Your task to perform on an android device: Go to privacy settings Image 0: 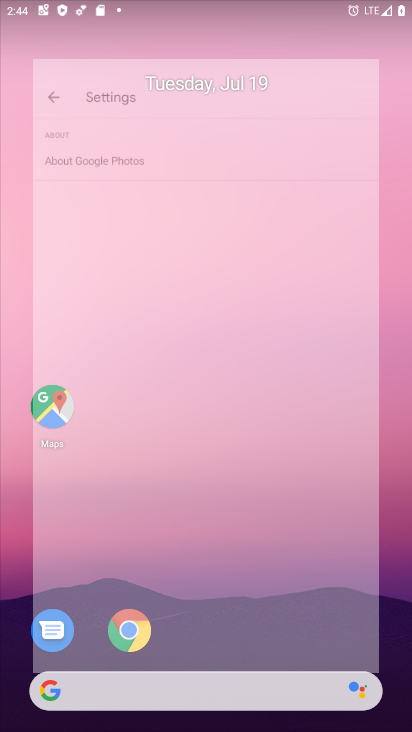
Step 0: press home button
Your task to perform on an android device: Go to privacy settings Image 1: 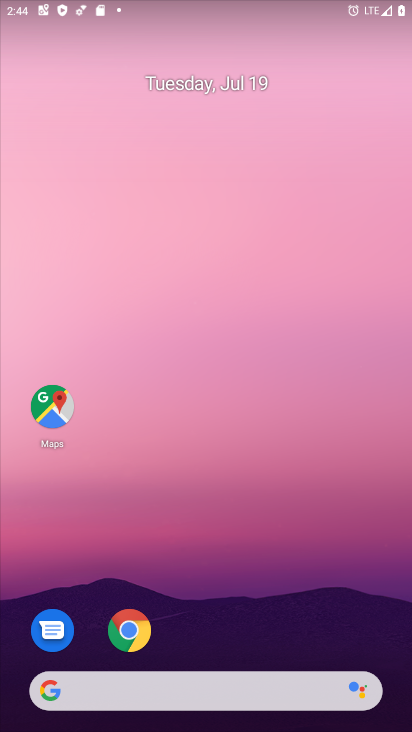
Step 1: drag from (214, 649) to (202, 0)
Your task to perform on an android device: Go to privacy settings Image 2: 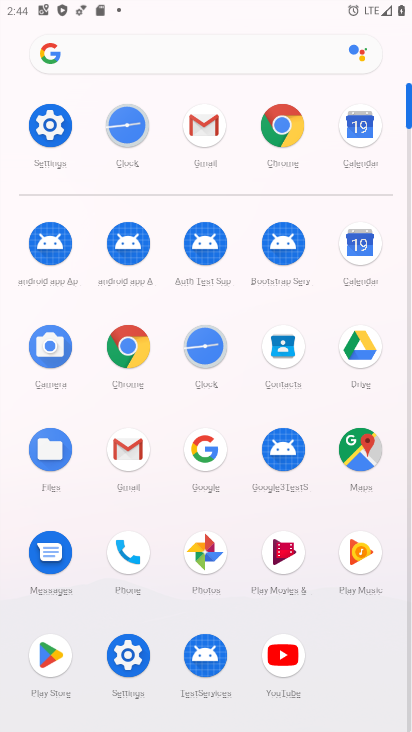
Step 2: click (51, 121)
Your task to perform on an android device: Go to privacy settings Image 3: 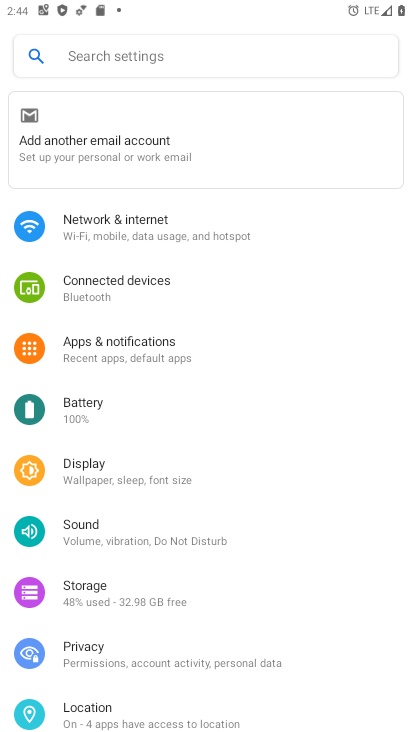
Step 3: click (120, 645)
Your task to perform on an android device: Go to privacy settings Image 4: 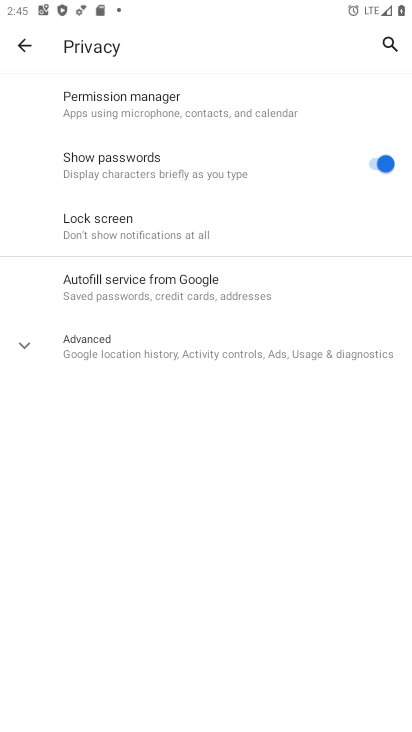
Step 4: click (28, 343)
Your task to perform on an android device: Go to privacy settings Image 5: 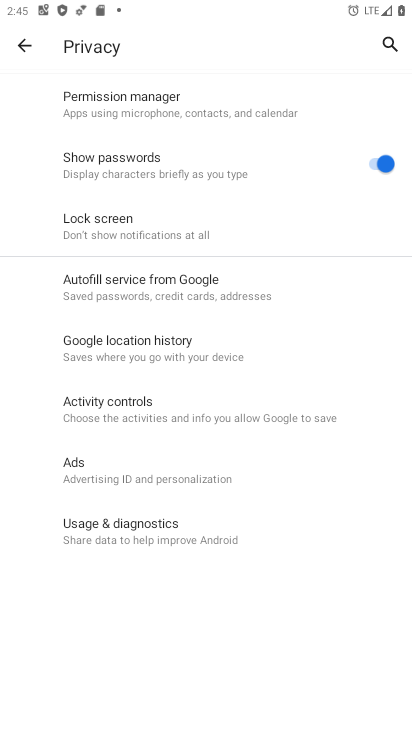
Step 5: task complete